Your task to perform on an android device: Open notification settings Image 0: 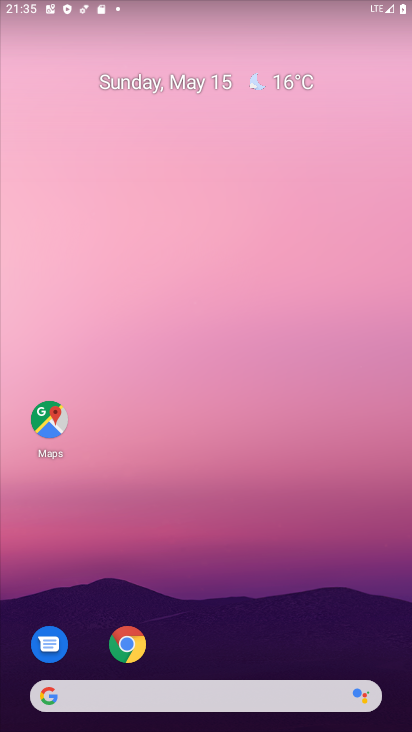
Step 0: drag from (212, 580) to (289, 143)
Your task to perform on an android device: Open notification settings Image 1: 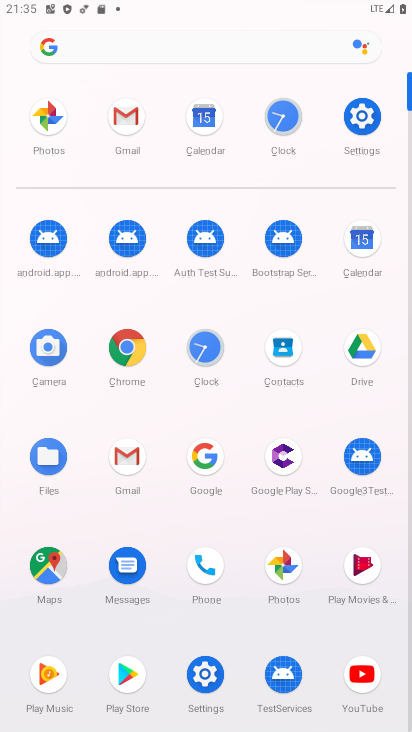
Step 1: click (371, 122)
Your task to perform on an android device: Open notification settings Image 2: 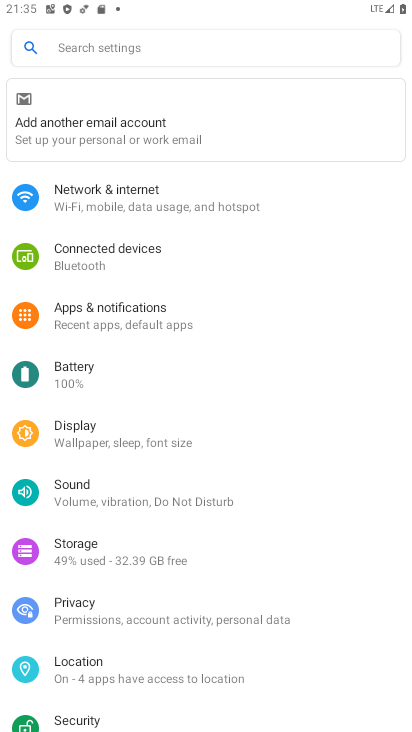
Step 2: click (139, 314)
Your task to perform on an android device: Open notification settings Image 3: 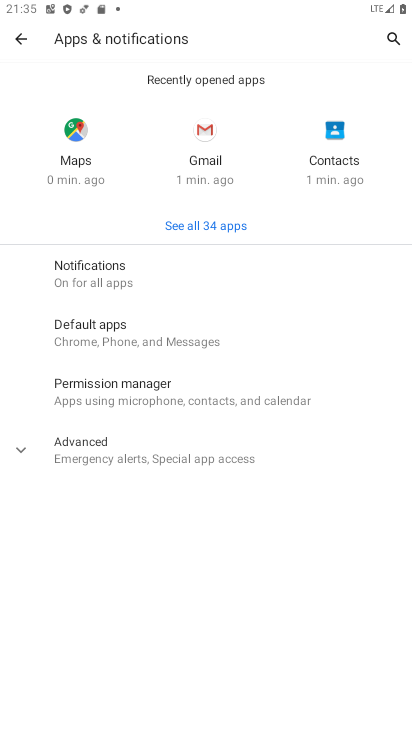
Step 3: task complete